Your task to perform on an android device: Show me the alarms in the clock app Image 0: 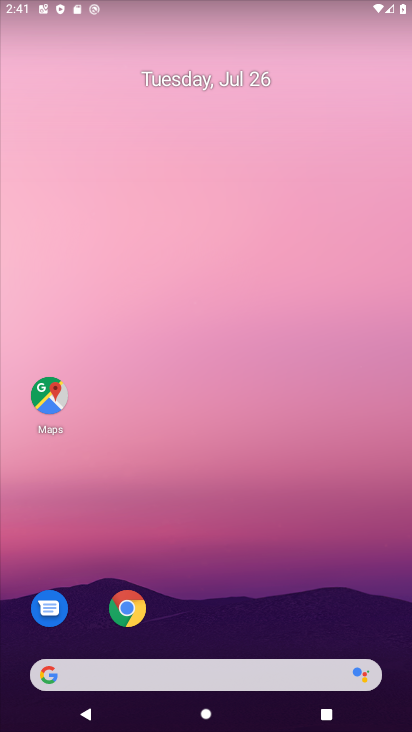
Step 0: drag from (238, 646) to (238, 264)
Your task to perform on an android device: Show me the alarms in the clock app Image 1: 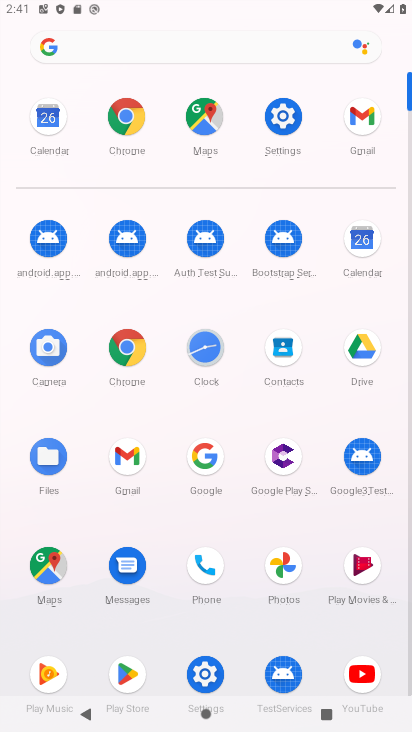
Step 1: click (201, 377)
Your task to perform on an android device: Show me the alarms in the clock app Image 2: 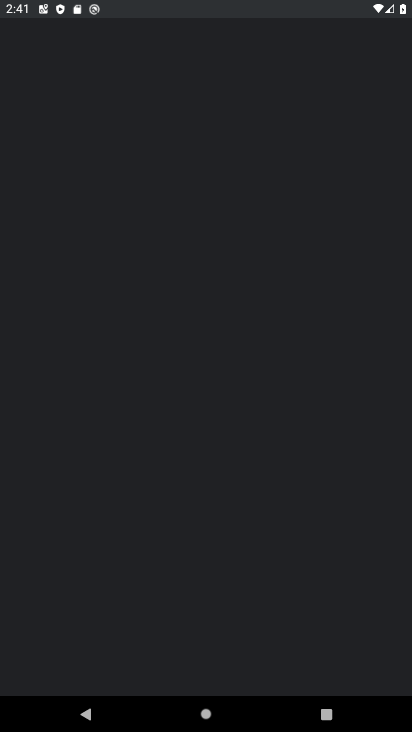
Step 2: task complete